Your task to perform on an android device: change the clock display to digital Image 0: 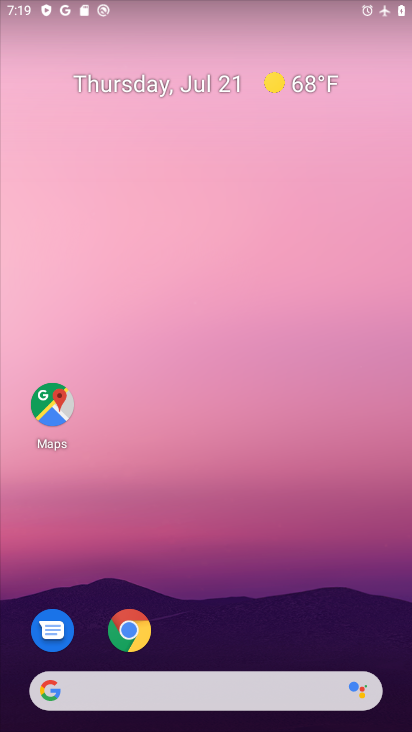
Step 0: drag from (242, 581) to (281, 8)
Your task to perform on an android device: change the clock display to digital Image 1: 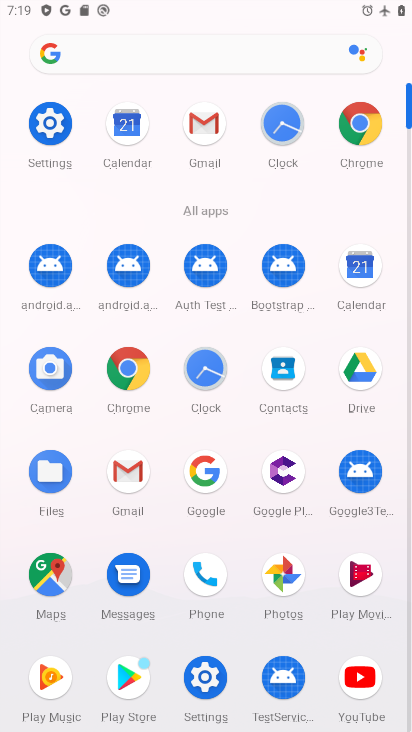
Step 1: click (199, 375)
Your task to perform on an android device: change the clock display to digital Image 2: 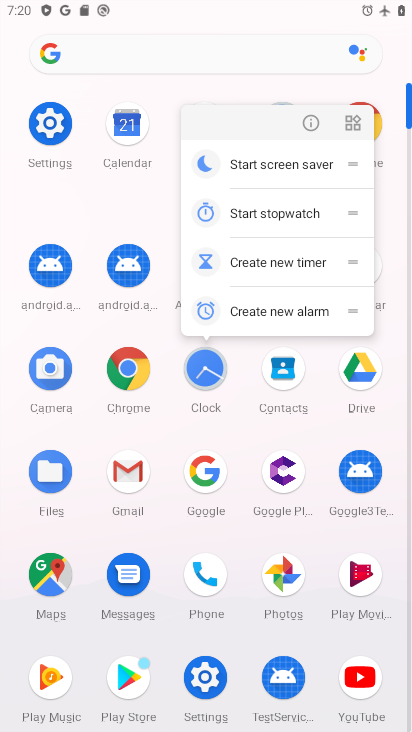
Step 2: click (185, 365)
Your task to perform on an android device: change the clock display to digital Image 3: 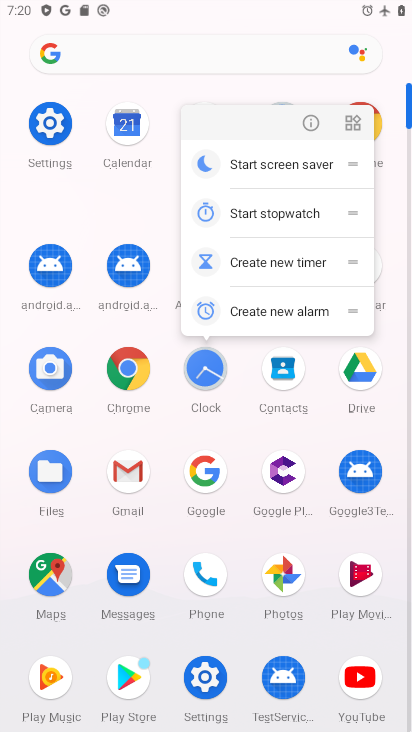
Step 3: click (201, 381)
Your task to perform on an android device: change the clock display to digital Image 4: 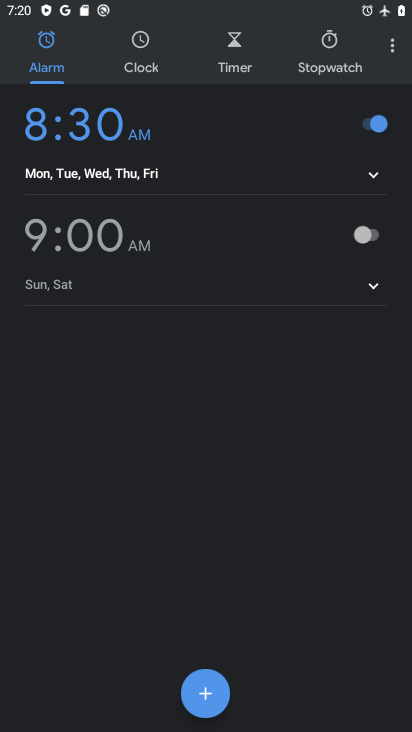
Step 4: click (393, 45)
Your task to perform on an android device: change the clock display to digital Image 5: 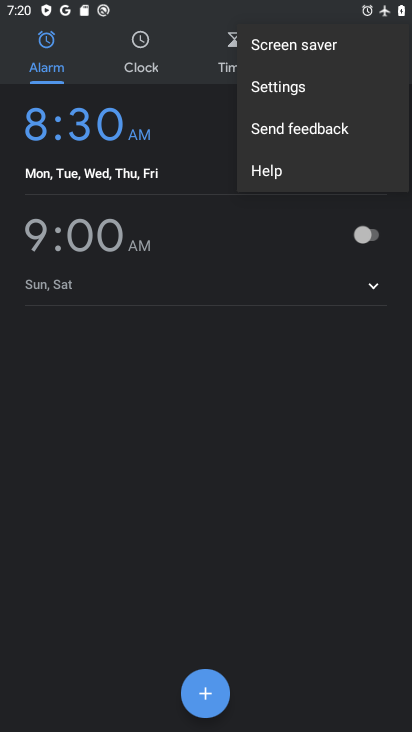
Step 5: click (285, 94)
Your task to perform on an android device: change the clock display to digital Image 6: 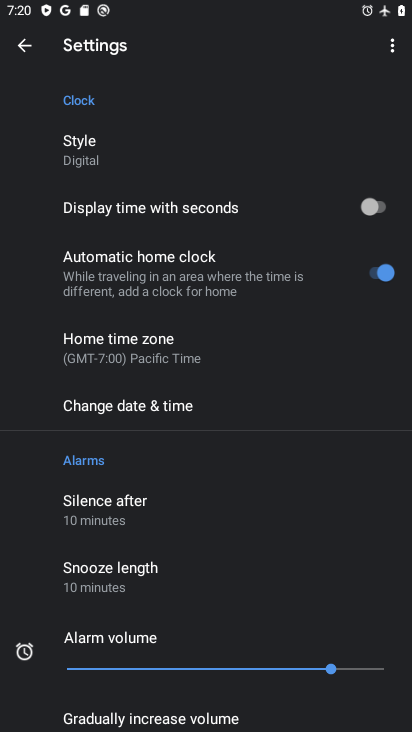
Step 6: task complete